Your task to perform on an android device: check the backup settings in the google photos Image 0: 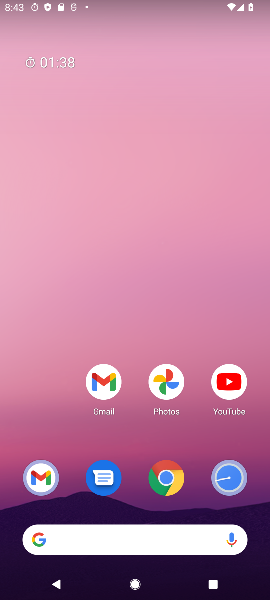
Step 0: drag from (178, 500) to (170, 2)
Your task to perform on an android device: check the backup settings in the google photos Image 1: 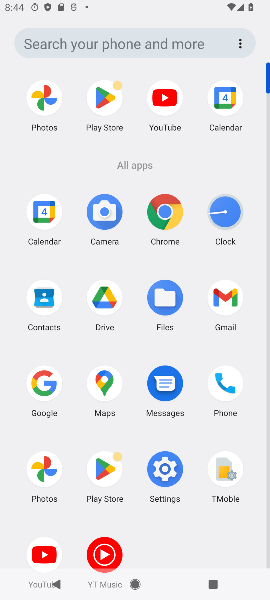
Step 1: click (32, 465)
Your task to perform on an android device: check the backup settings in the google photos Image 2: 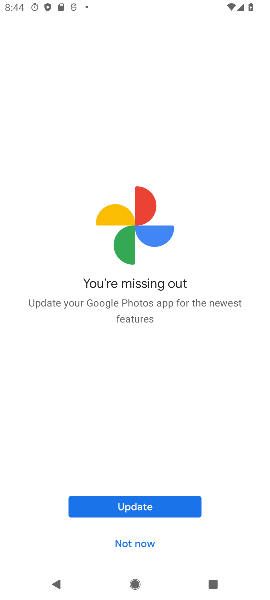
Step 2: click (128, 509)
Your task to perform on an android device: check the backup settings in the google photos Image 3: 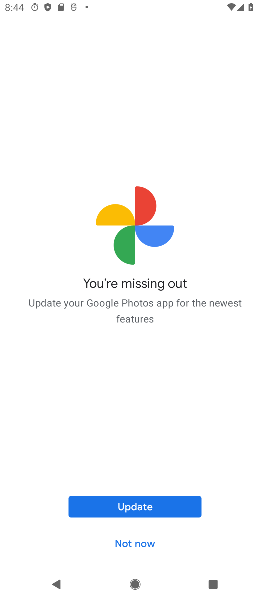
Step 3: click (138, 551)
Your task to perform on an android device: check the backup settings in the google photos Image 4: 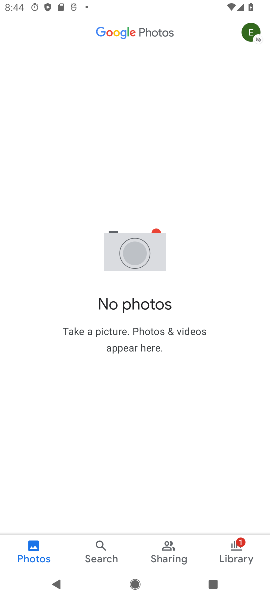
Step 4: click (245, 25)
Your task to perform on an android device: check the backup settings in the google photos Image 5: 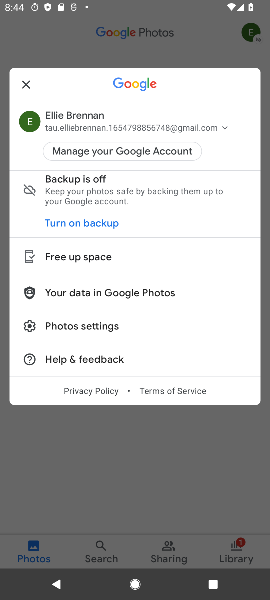
Step 5: click (52, 328)
Your task to perform on an android device: check the backup settings in the google photos Image 6: 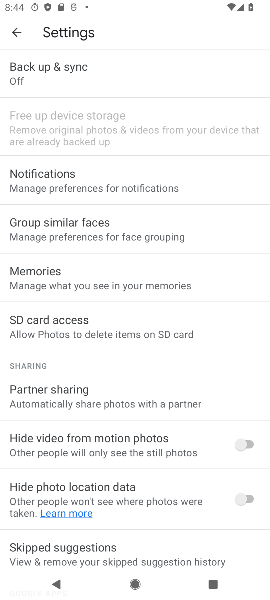
Step 6: click (62, 71)
Your task to perform on an android device: check the backup settings in the google photos Image 7: 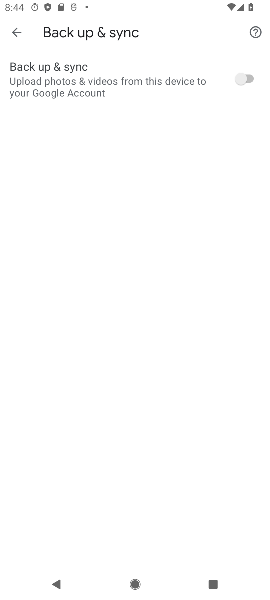
Step 7: task complete